Your task to perform on an android device: turn pop-ups on in chrome Image 0: 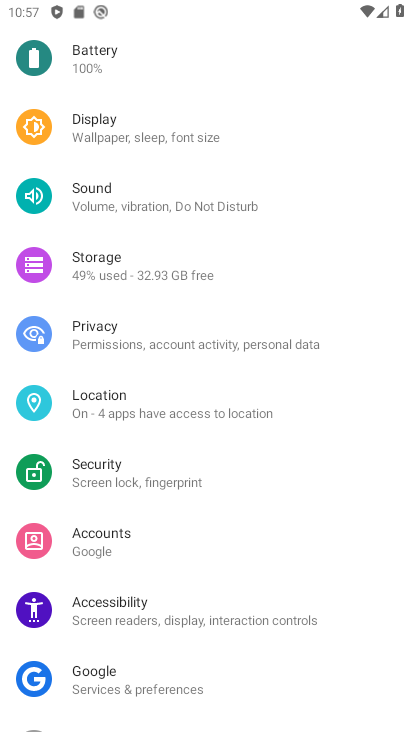
Step 0: press home button
Your task to perform on an android device: turn pop-ups on in chrome Image 1: 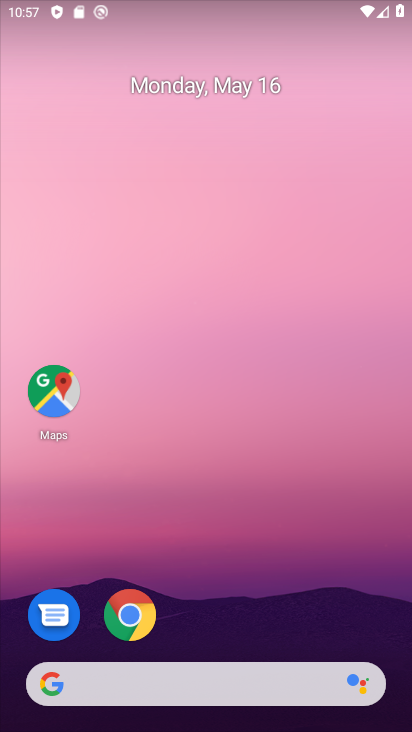
Step 1: drag from (388, 607) to (404, 34)
Your task to perform on an android device: turn pop-ups on in chrome Image 2: 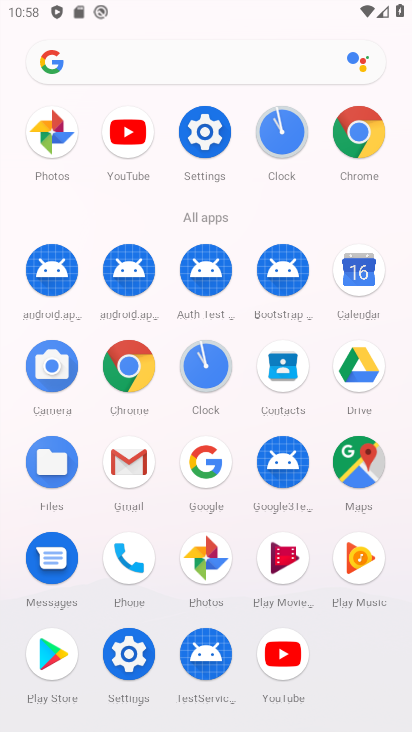
Step 2: click (359, 146)
Your task to perform on an android device: turn pop-ups on in chrome Image 3: 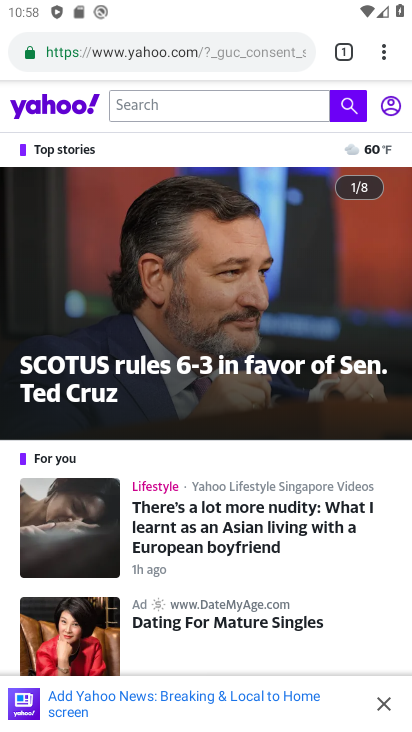
Step 3: drag from (384, 55) to (205, 628)
Your task to perform on an android device: turn pop-ups on in chrome Image 4: 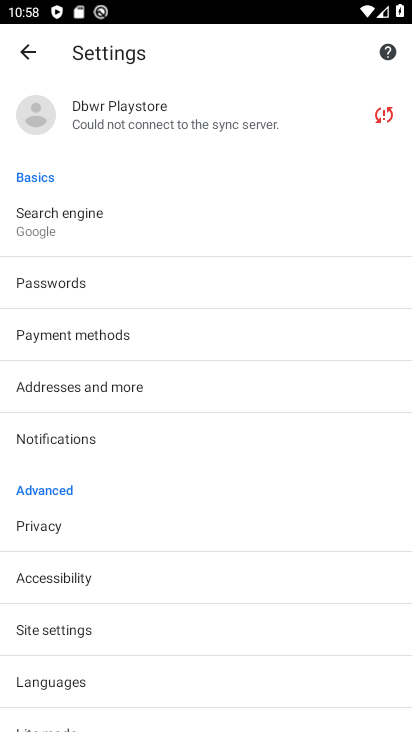
Step 4: drag from (306, 639) to (299, 360)
Your task to perform on an android device: turn pop-ups on in chrome Image 5: 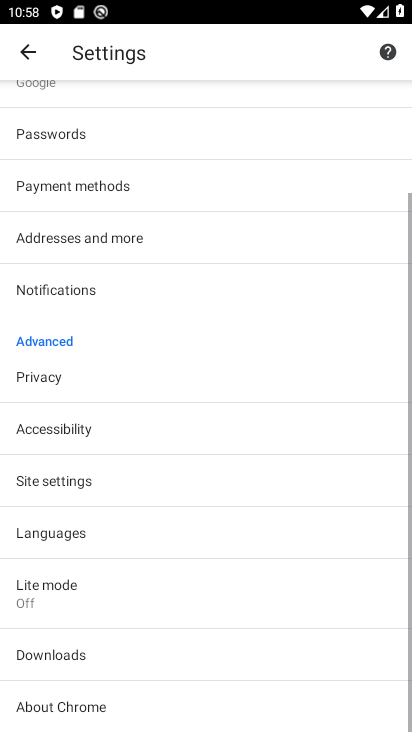
Step 5: click (71, 628)
Your task to perform on an android device: turn pop-ups on in chrome Image 6: 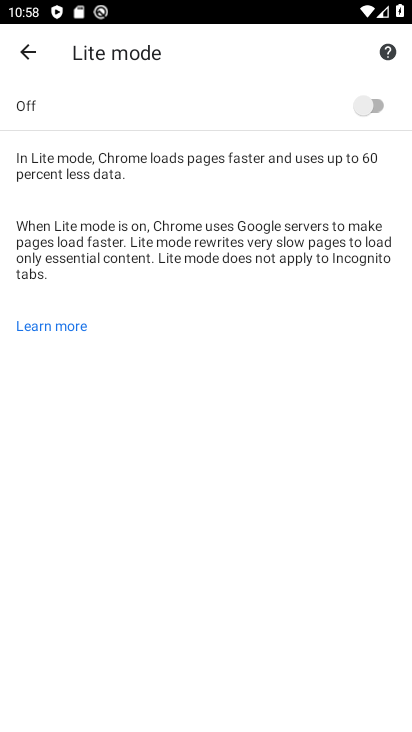
Step 6: click (19, 49)
Your task to perform on an android device: turn pop-ups on in chrome Image 7: 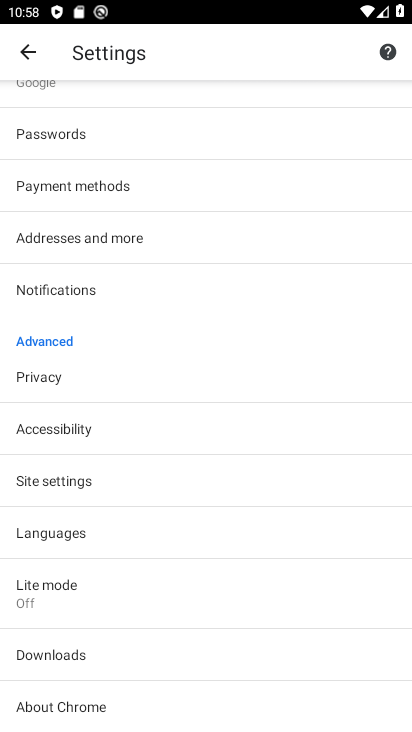
Step 7: click (27, 477)
Your task to perform on an android device: turn pop-ups on in chrome Image 8: 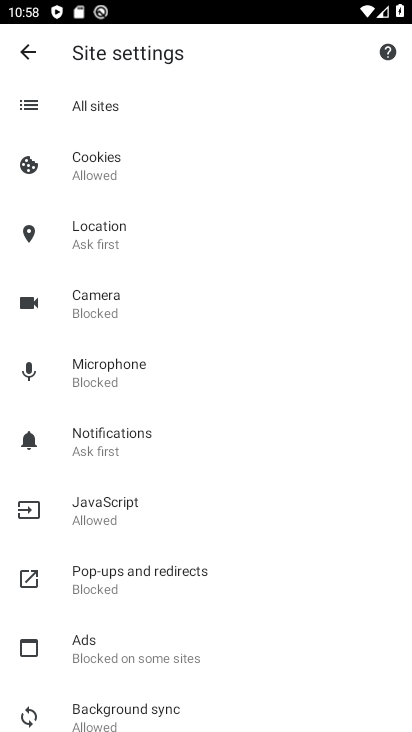
Step 8: click (117, 574)
Your task to perform on an android device: turn pop-ups on in chrome Image 9: 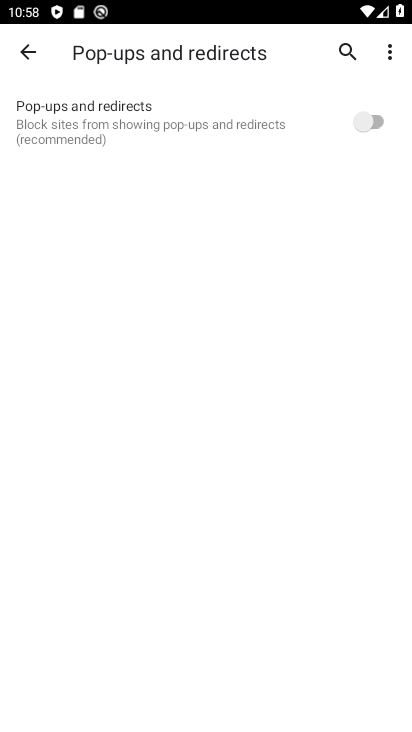
Step 9: click (374, 120)
Your task to perform on an android device: turn pop-ups on in chrome Image 10: 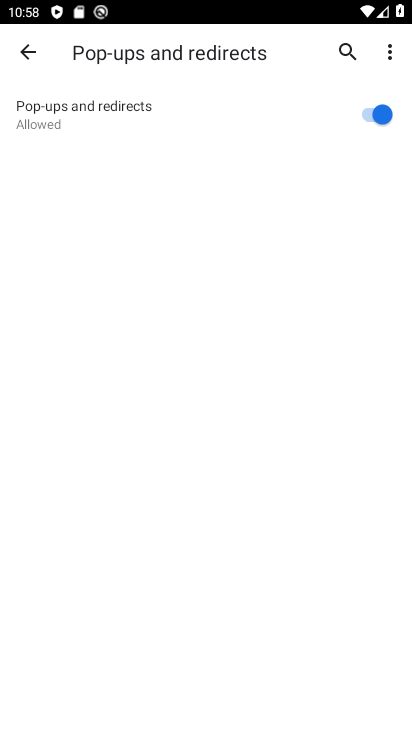
Step 10: task complete